Your task to perform on an android device: turn on the 24-hour format for clock Image 0: 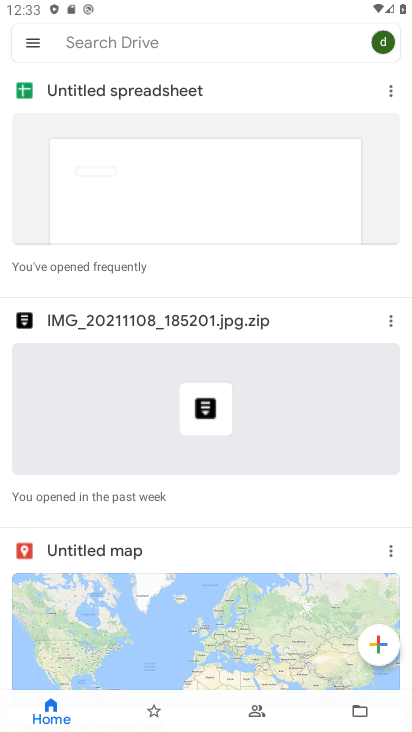
Step 0: press home button
Your task to perform on an android device: turn on the 24-hour format for clock Image 1: 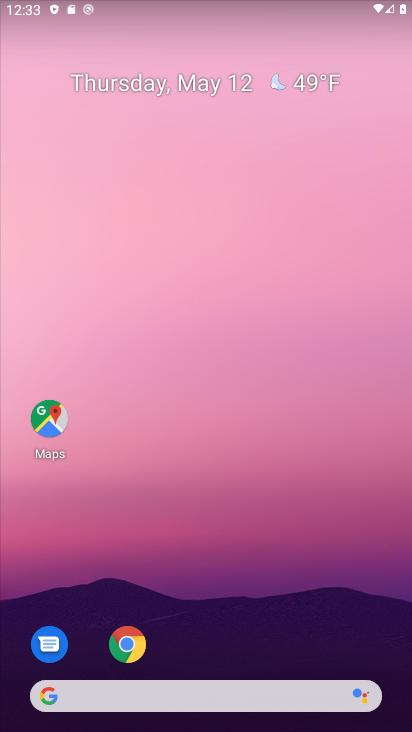
Step 1: drag from (207, 555) to (65, 3)
Your task to perform on an android device: turn on the 24-hour format for clock Image 2: 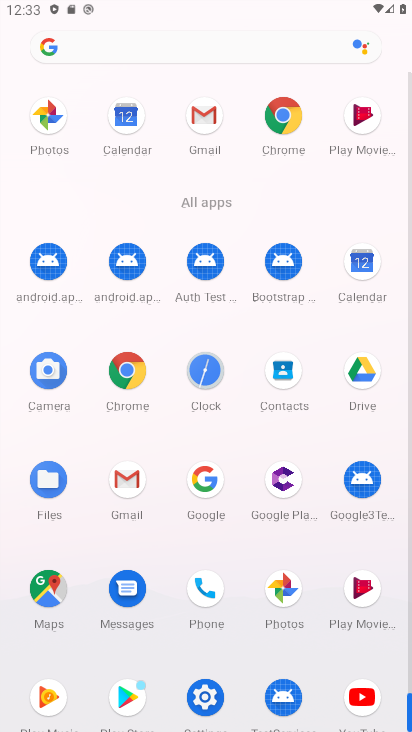
Step 2: click (204, 373)
Your task to perform on an android device: turn on the 24-hour format for clock Image 3: 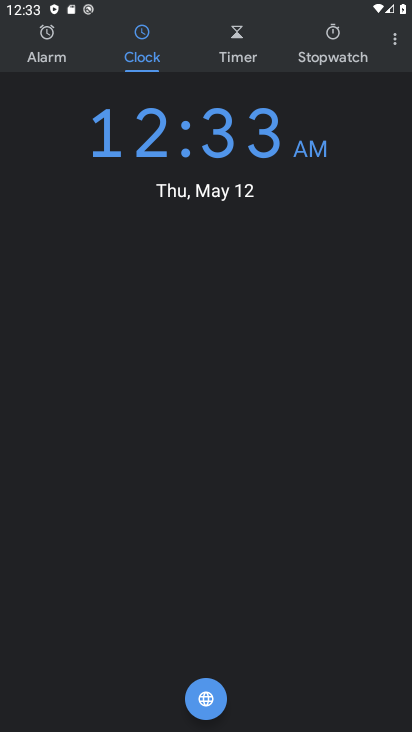
Step 3: click (395, 39)
Your task to perform on an android device: turn on the 24-hour format for clock Image 4: 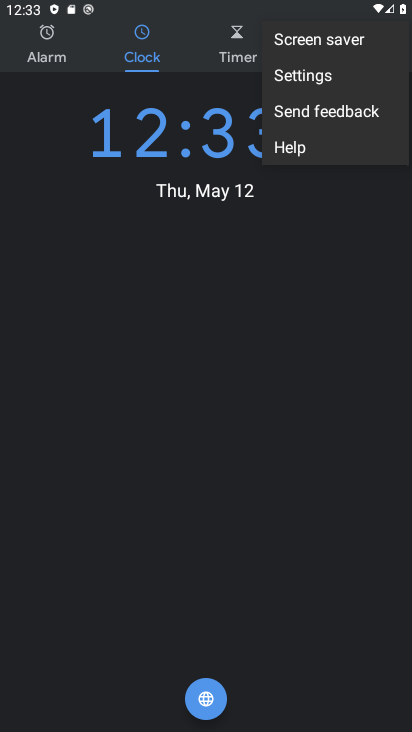
Step 4: click (313, 80)
Your task to perform on an android device: turn on the 24-hour format for clock Image 5: 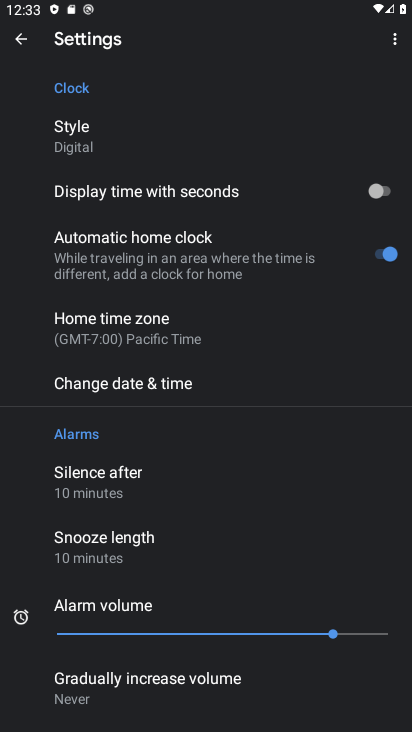
Step 5: click (115, 390)
Your task to perform on an android device: turn on the 24-hour format for clock Image 6: 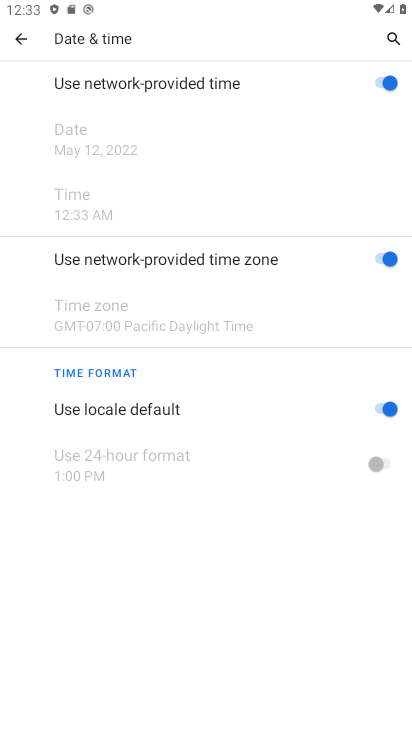
Step 6: click (377, 463)
Your task to perform on an android device: turn on the 24-hour format for clock Image 7: 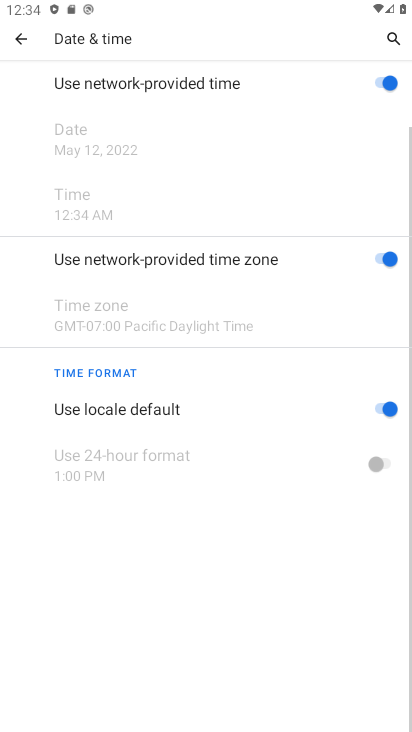
Step 7: click (377, 463)
Your task to perform on an android device: turn on the 24-hour format for clock Image 8: 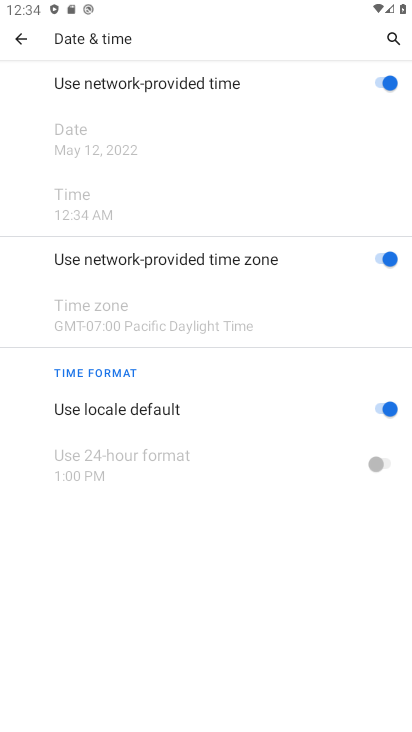
Step 8: click (386, 411)
Your task to perform on an android device: turn on the 24-hour format for clock Image 9: 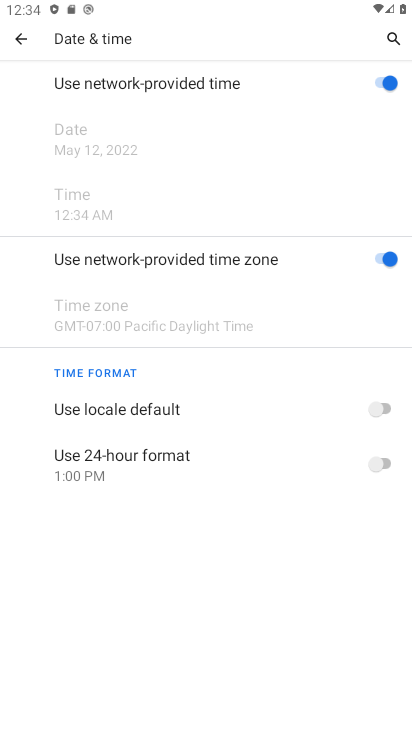
Step 9: click (376, 467)
Your task to perform on an android device: turn on the 24-hour format for clock Image 10: 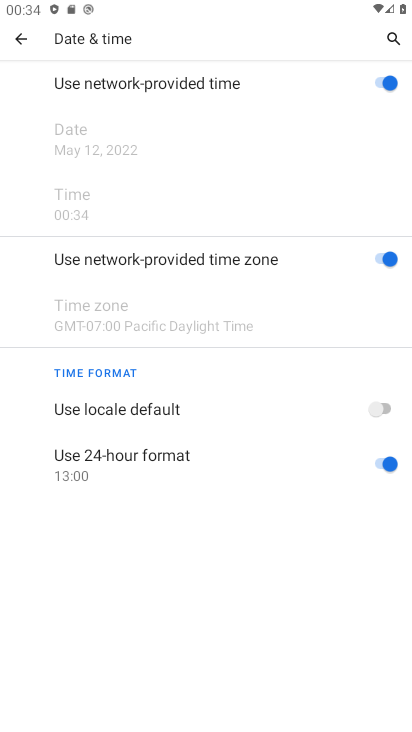
Step 10: task complete